Your task to perform on an android device: Open battery settings Image 0: 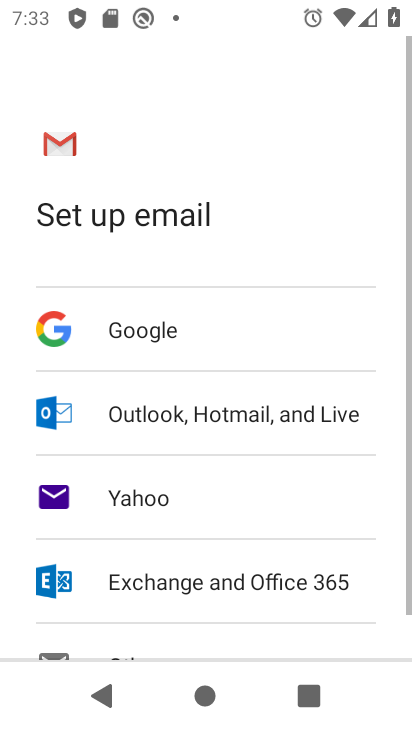
Step 0: press home button
Your task to perform on an android device: Open battery settings Image 1: 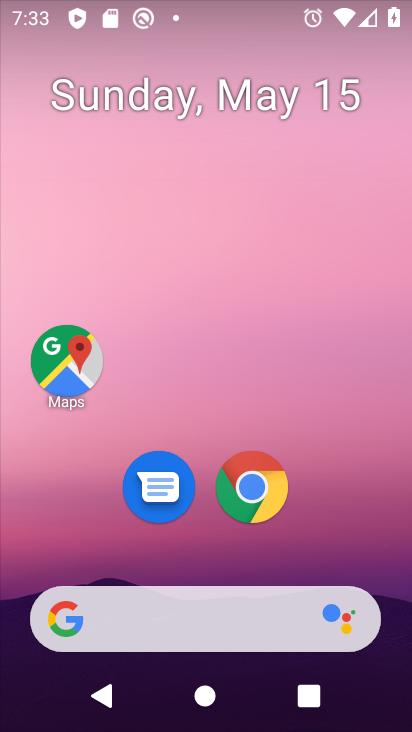
Step 1: drag from (349, 540) to (329, 208)
Your task to perform on an android device: Open battery settings Image 2: 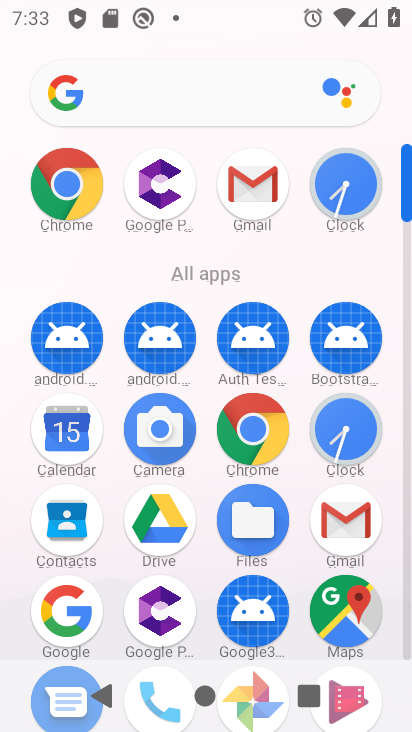
Step 2: drag from (189, 576) to (196, 299)
Your task to perform on an android device: Open battery settings Image 3: 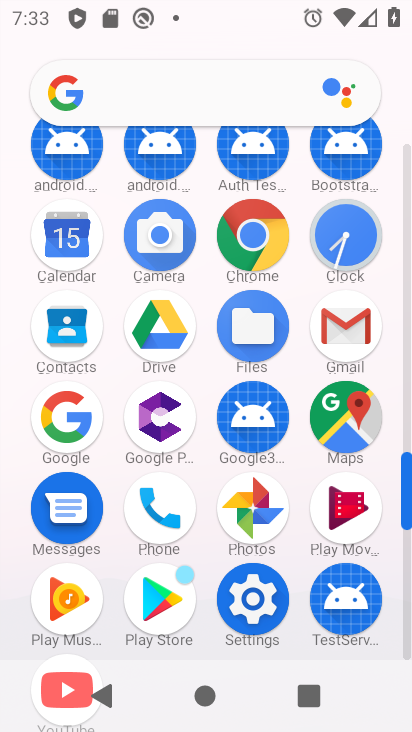
Step 3: click (259, 583)
Your task to perform on an android device: Open battery settings Image 4: 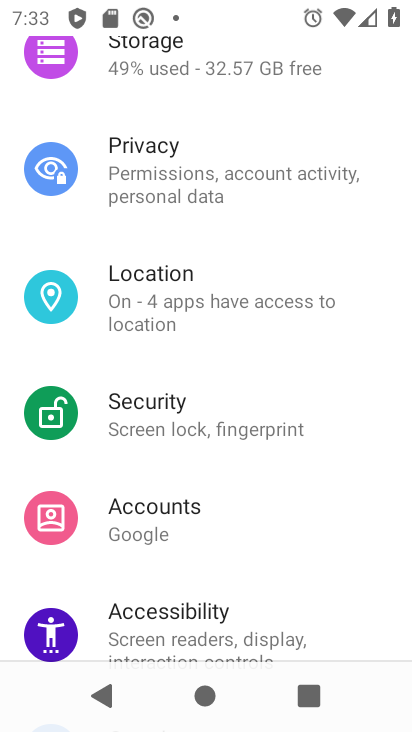
Step 4: drag from (286, 251) to (271, 512)
Your task to perform on an android device: Open battery settings Image 5: 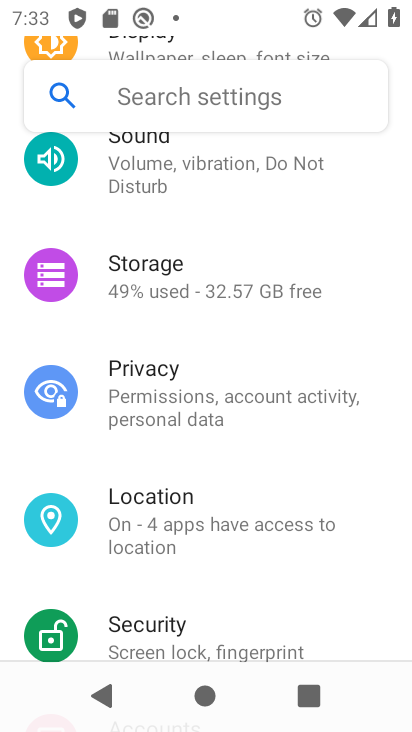
Step 5: drag from (270, 136) to (278, 440)
Your task to perform on an android device: Open battery settings Image 6: 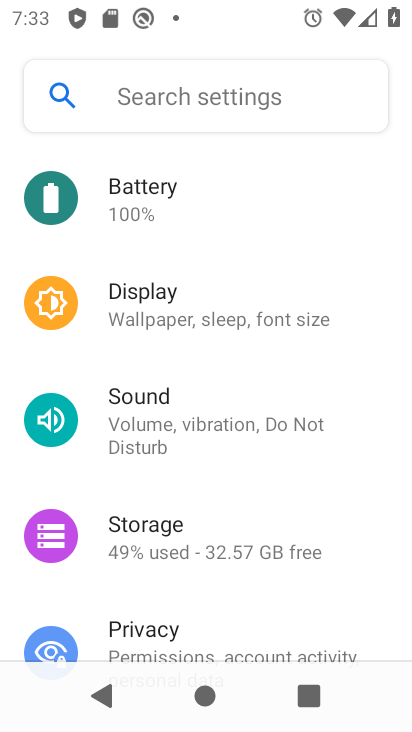
Step 6: click (148, 206)
Your task to perform on an android device: Open battery settings Image 7: 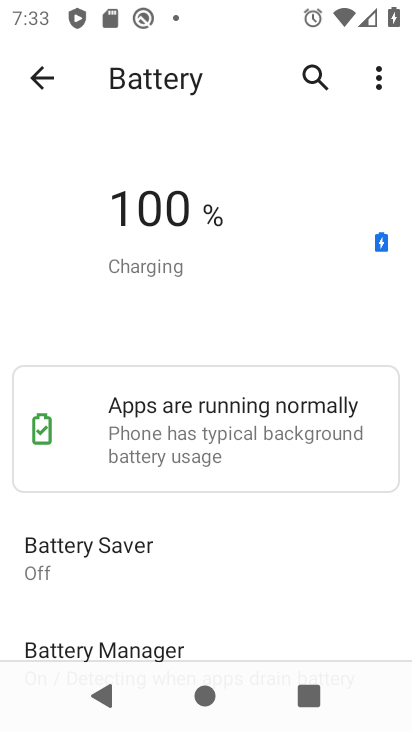
Step 7: task complete